Your task to perform on an android device: Clear all items from cart on bestbuy. Image 0: 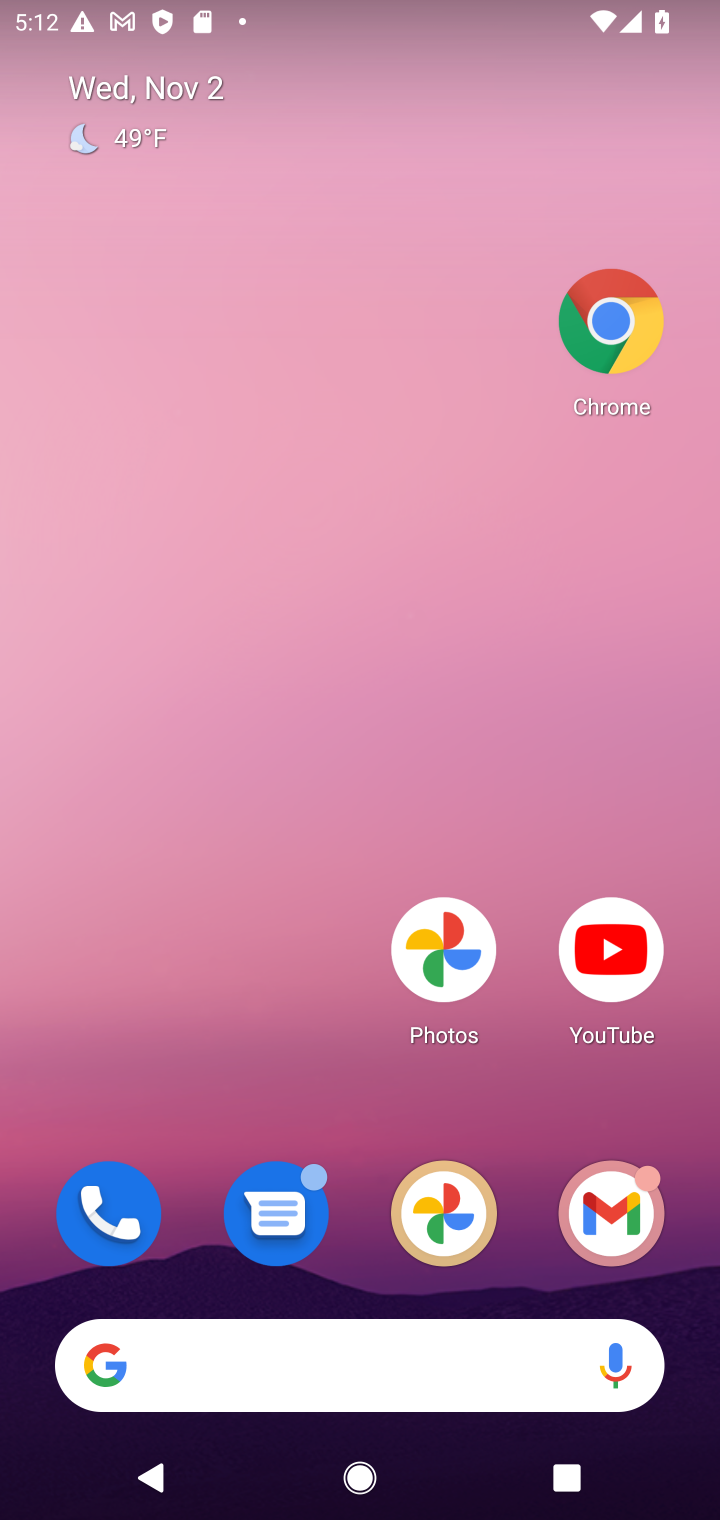
Step 0: drag from (352, 1107) to (535, 560)
Your task to perform on an android device: Clear all items from cart on bestbuy. Image 1: 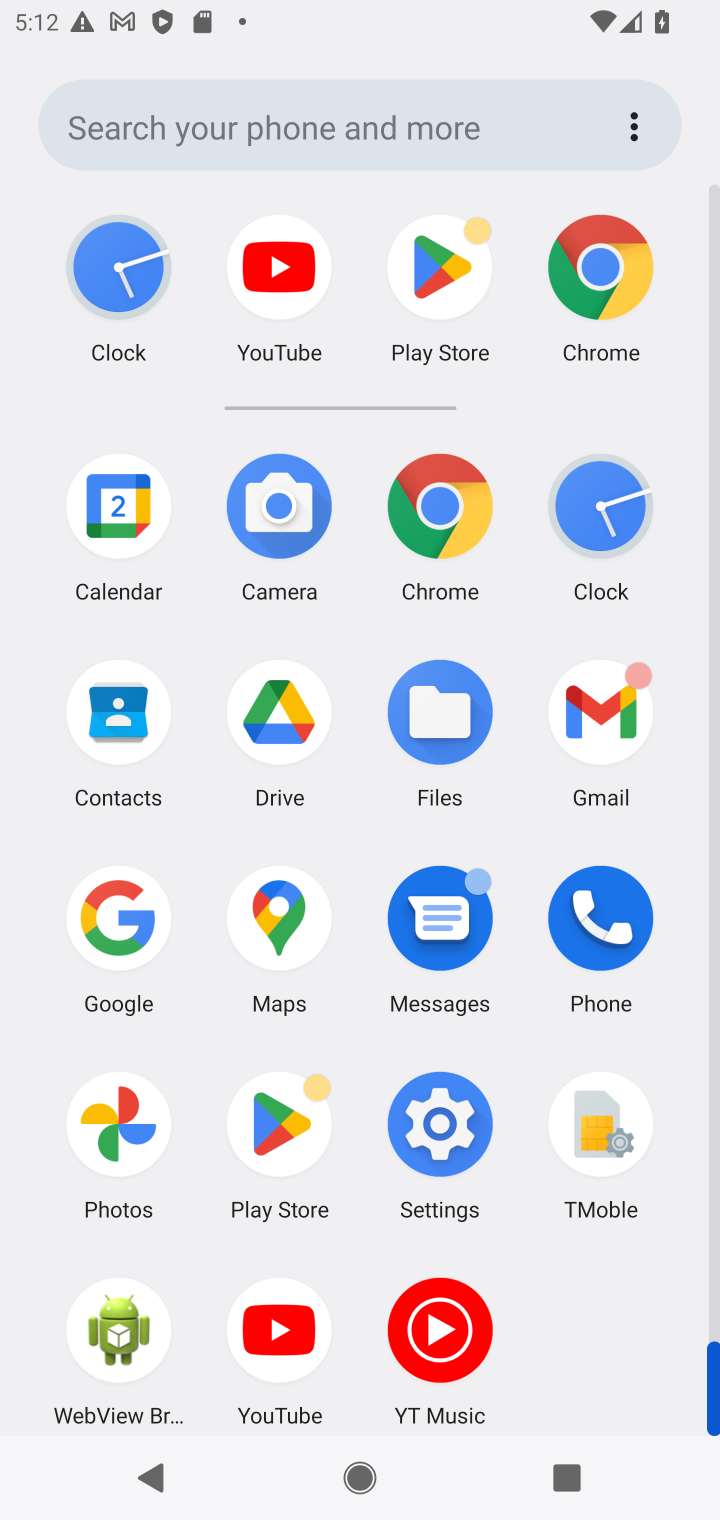
Step 1: click (89, 919)
Your task to perform on an android device: Clear all items from cart on bestbuy. Image 2: 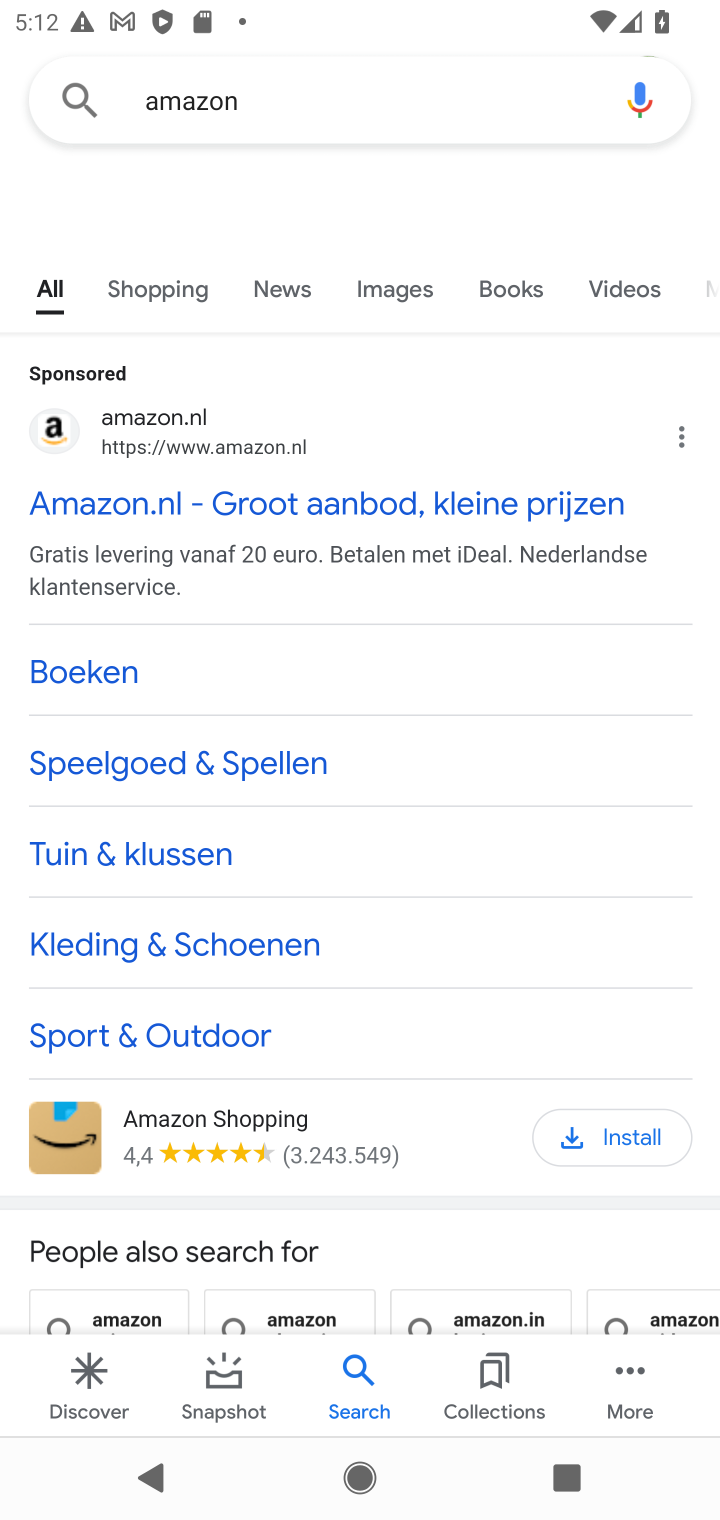
Step 2: click (426, 95)
Your task to perform on an android device: Clear all items from cart on bestbuy. Image 3: 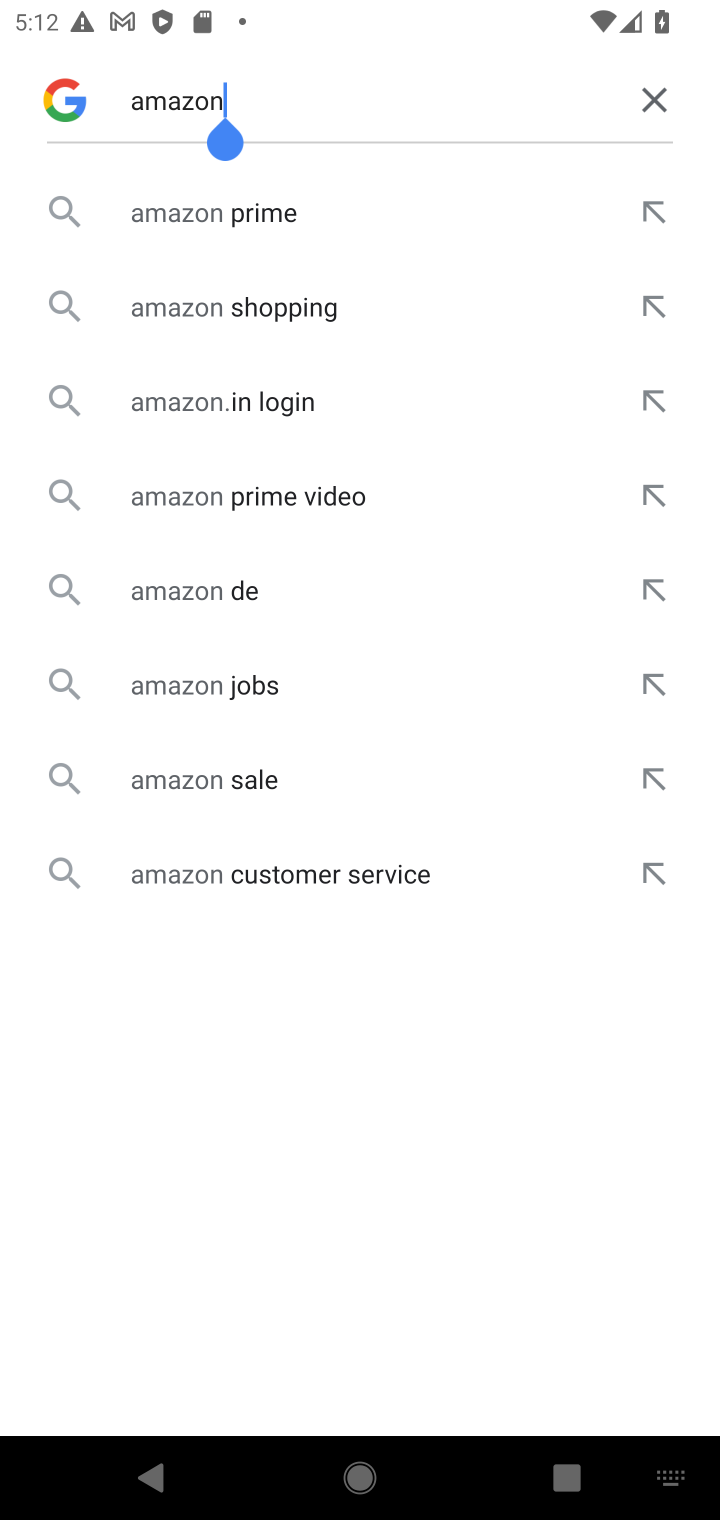
Step 3: click (661, 90)
Your task to perform on an android device: Clear all items from cart on bestbuy. Image 4: 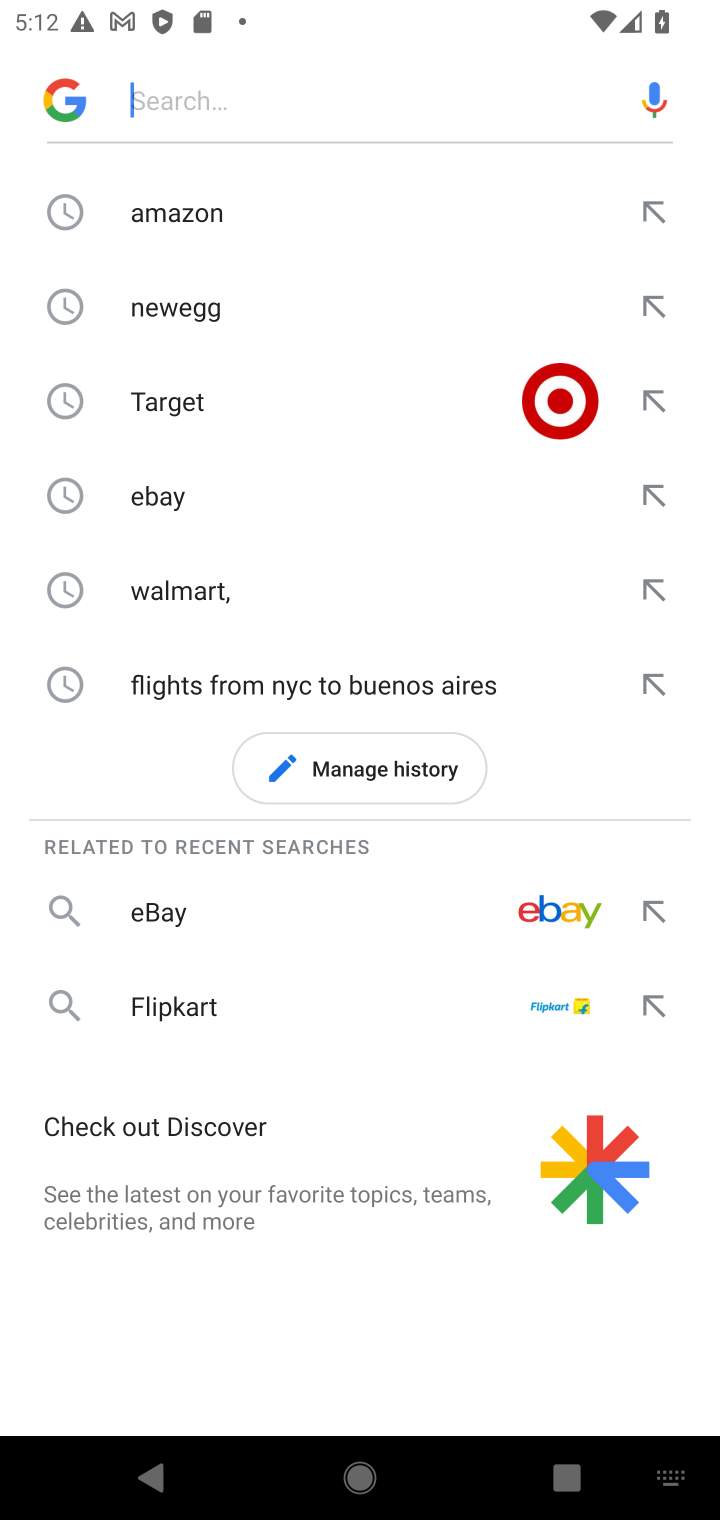
Step 4: type "bestbuy"
Your task to perform on an android device: Clear all items from cart on bestbuy. Image 5: 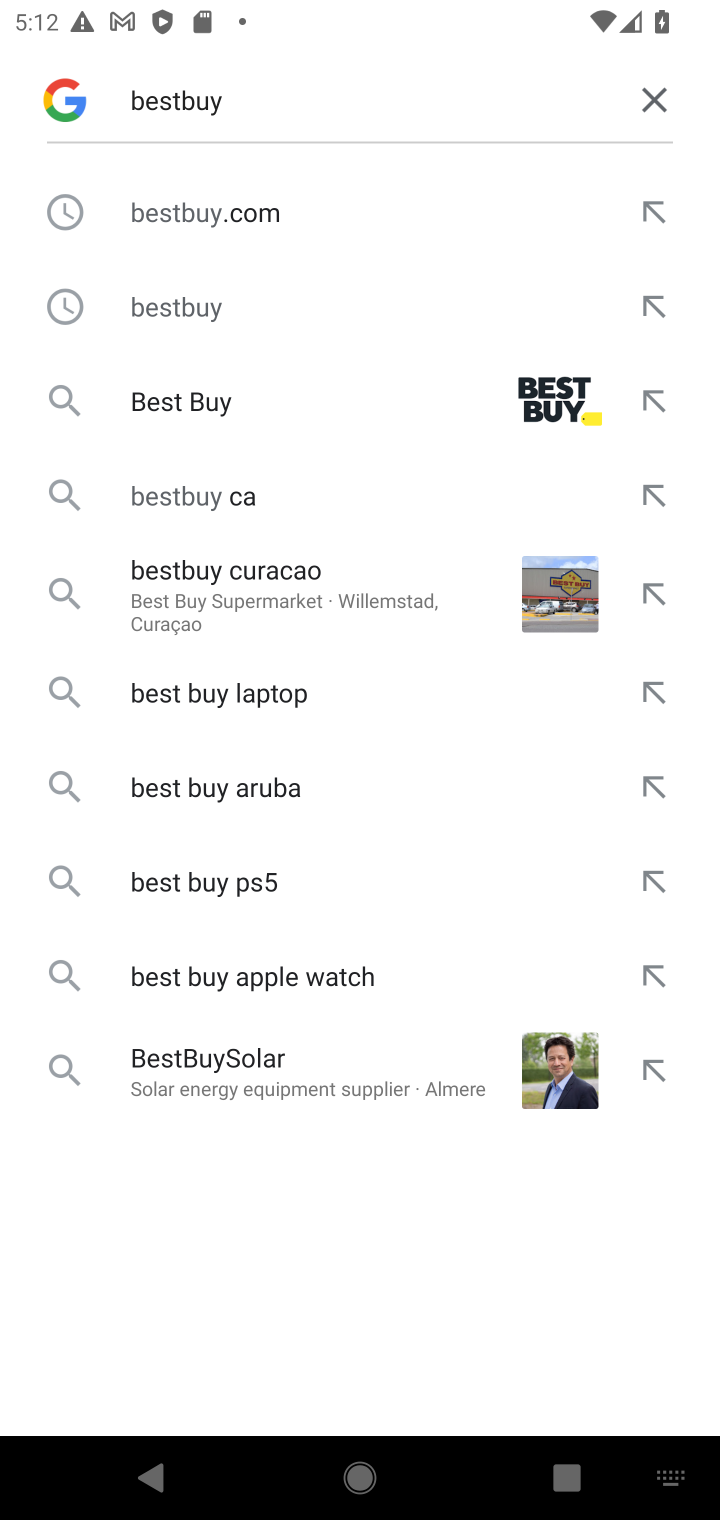
Step 5: click (220, 204)
Your task to perform on an android device: Clear all items from cart on bestbuy. Image 6: 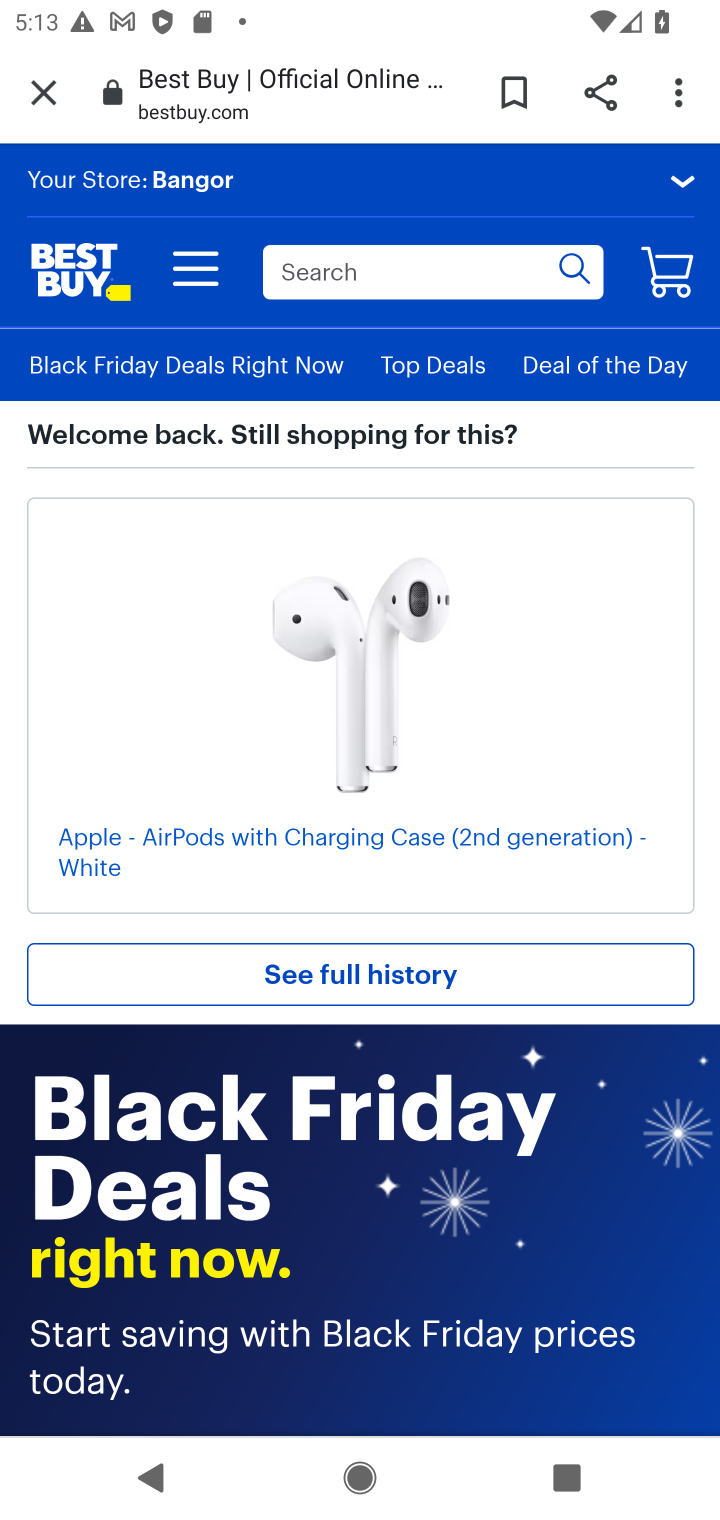
Step 6: click (388, 258)
Your task to perform on an android device: Clear all items from cart on bestbuy. Image 7: 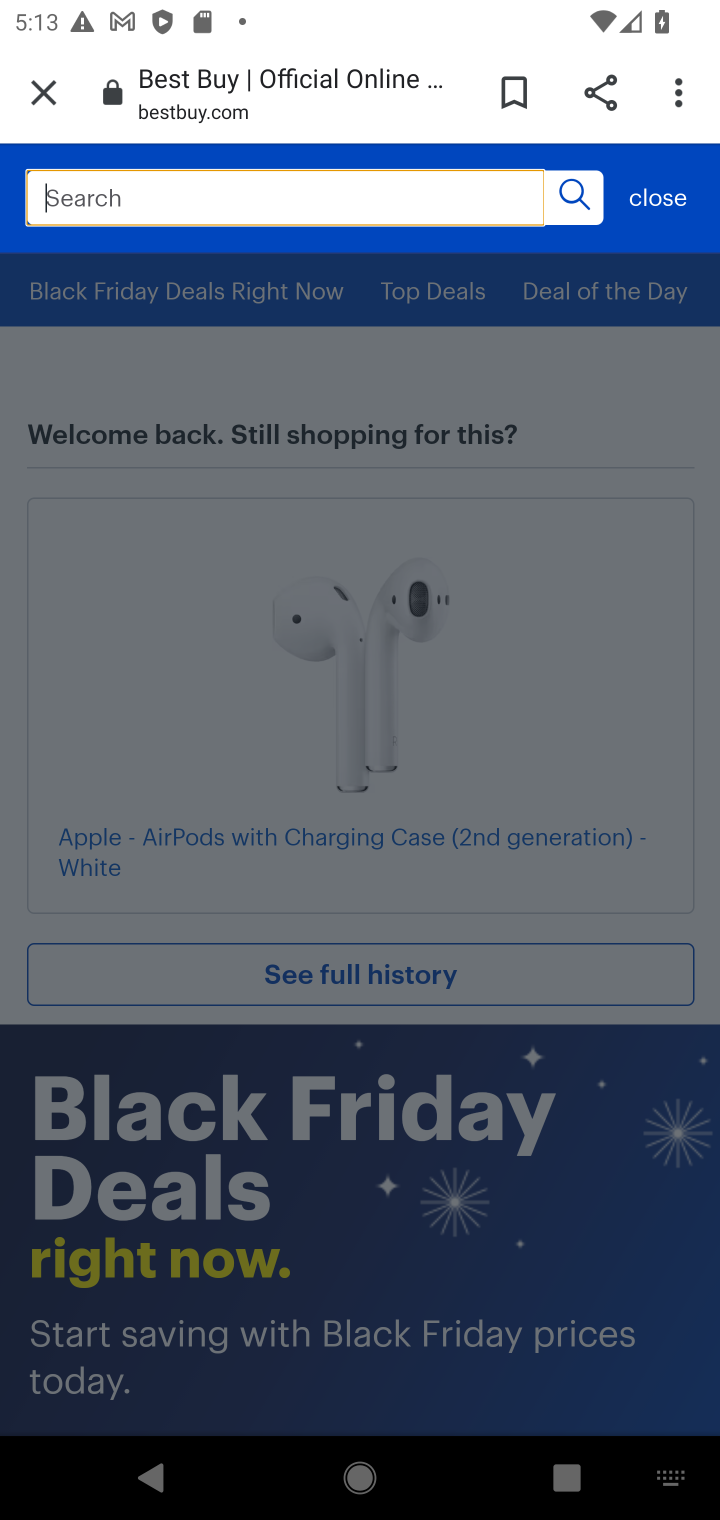
Step 7: type "bestbuy"
Your task to perform on an android device: Clear all items from cart on bestbuy. Image 8: 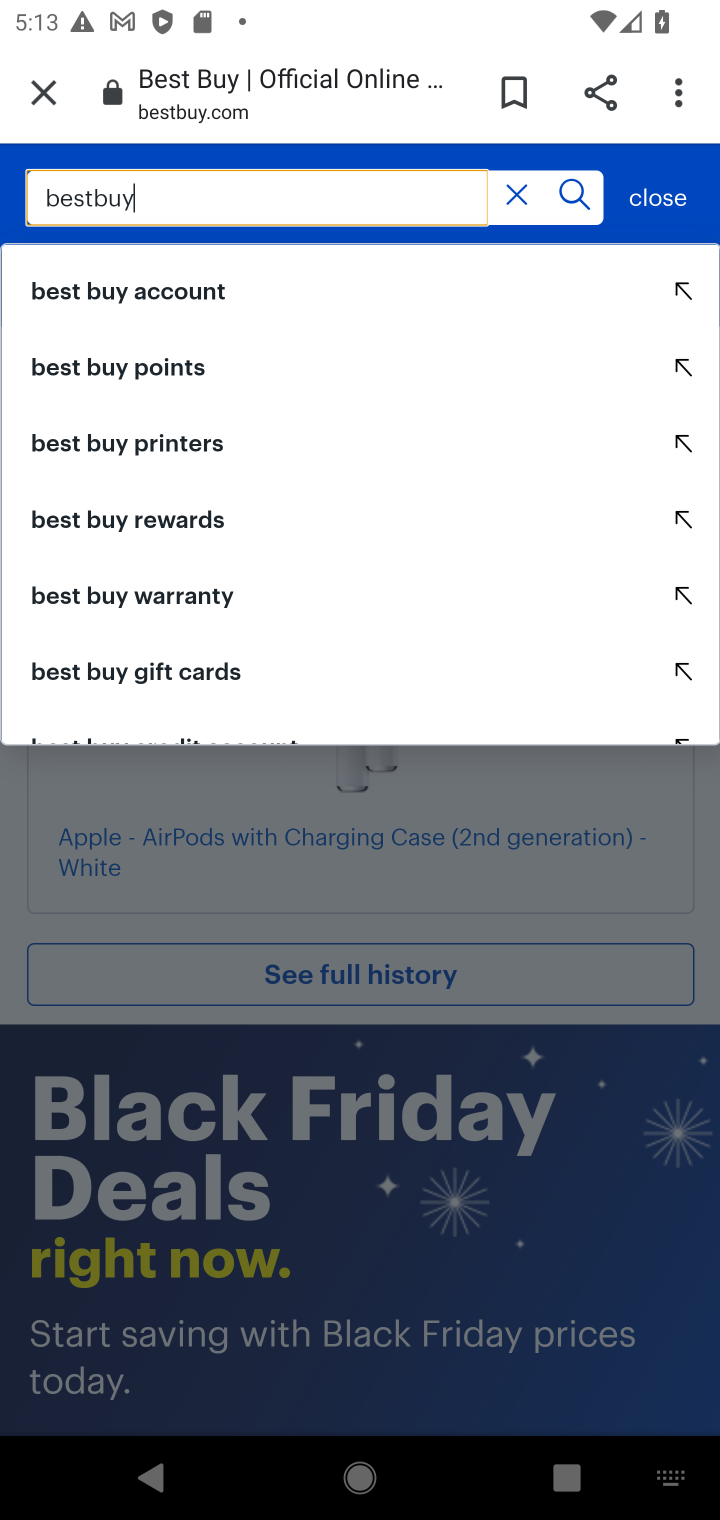
Step 8: click (511, 190)
Your task to perform on an android device: Clear all items from cart on bestbuy. Image 9: 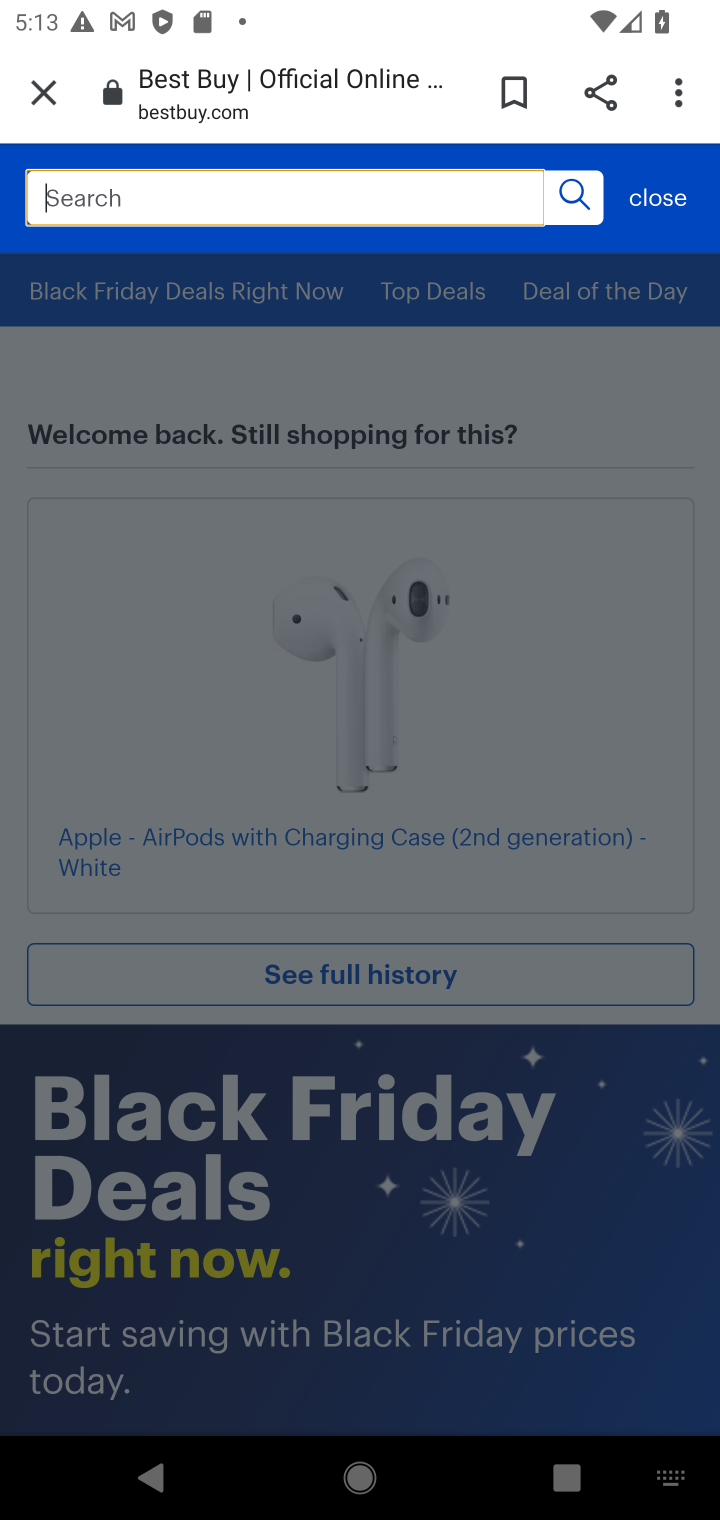
Step 9: click (680, 194)
Your task to perform on an android device: Clear all items from cart on bestbuy. Image 10: 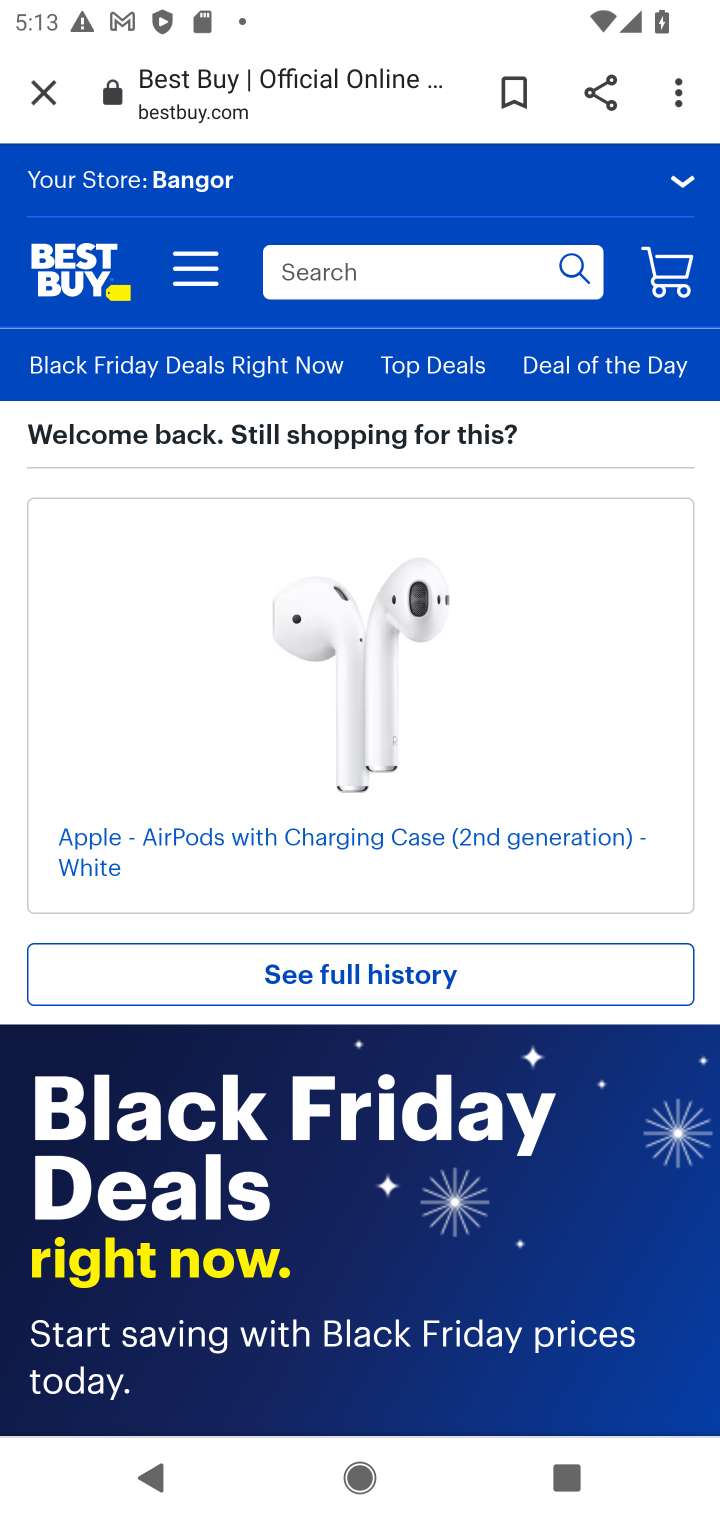
Step 10: click (687, 292)
Your task to perform on an android device: Clear all items from cart on bestbuy. Image 11: 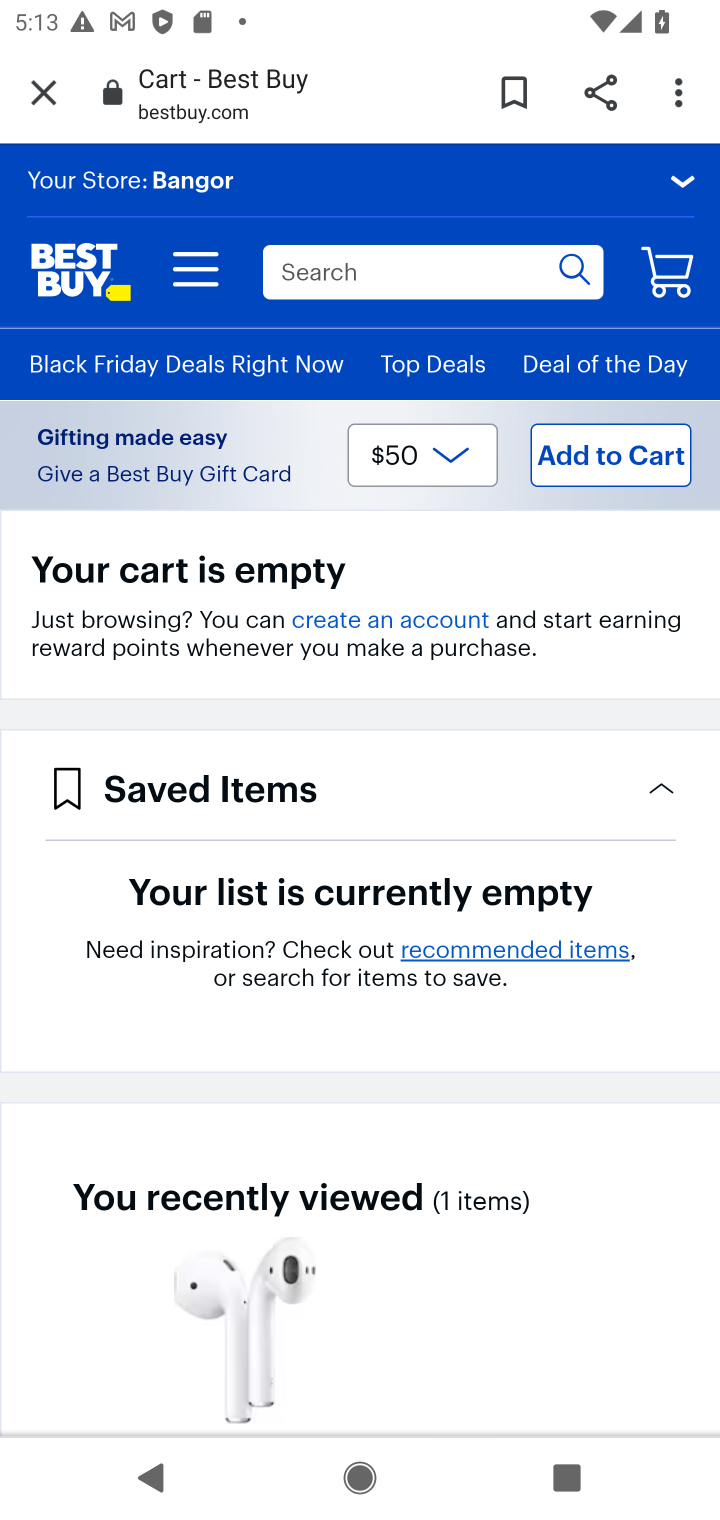
Step 11: task complete